Your task to perform on an android device: Go to calendar. Show me events next week Image 0: 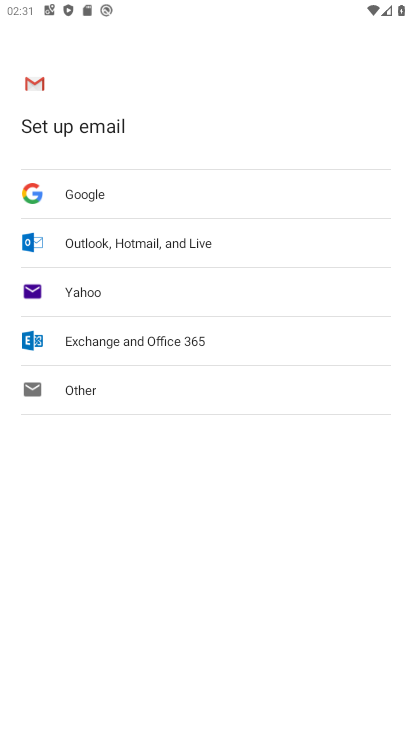
Step 0: press home button
Your task to perform on an android device: Go to calendar. Show me events next week Image 1: 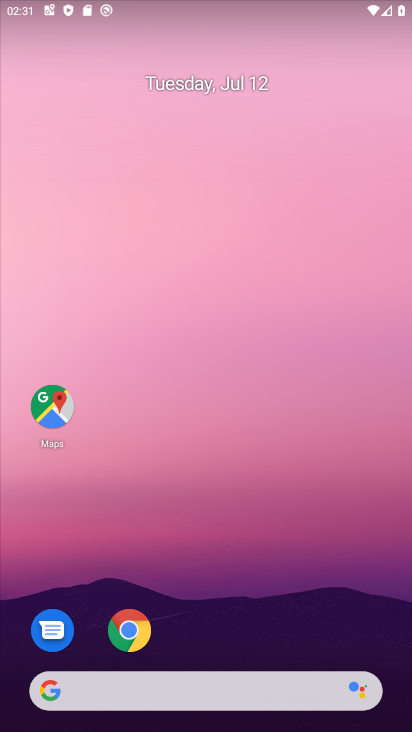
Step 1: drag from (351, 635) to (312, 222)
Your task to perform on an android device: Go to calendar. Show me events next week Image 2: 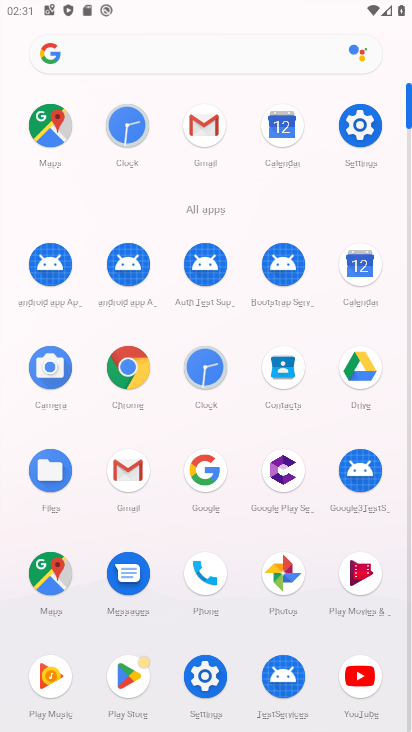
Step 2: click (357, 264)
Your task to perform on an android device: Go to calendar. Show me events next week Image 3: 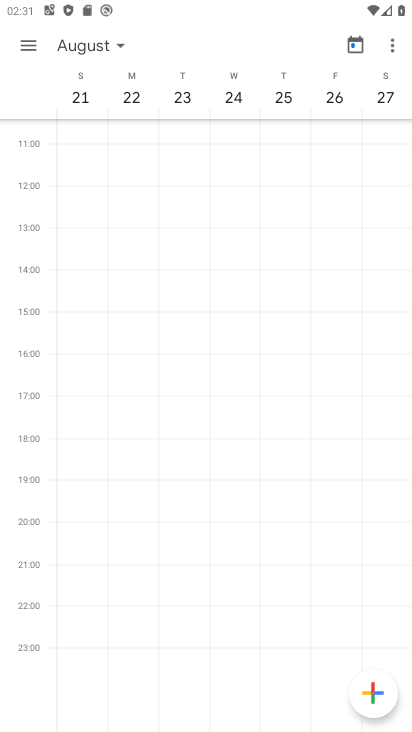
Step 3: click (26, 41)
Your task to perform on an android device: Go to calendar. Show me events next week Image 4: 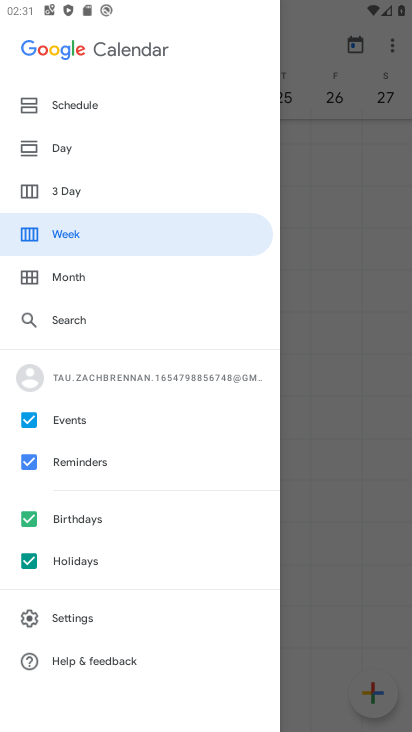
Step 4: click (89, 233)
Your task to perform on an android device: Go to calendar. Show me events next week Image 5: 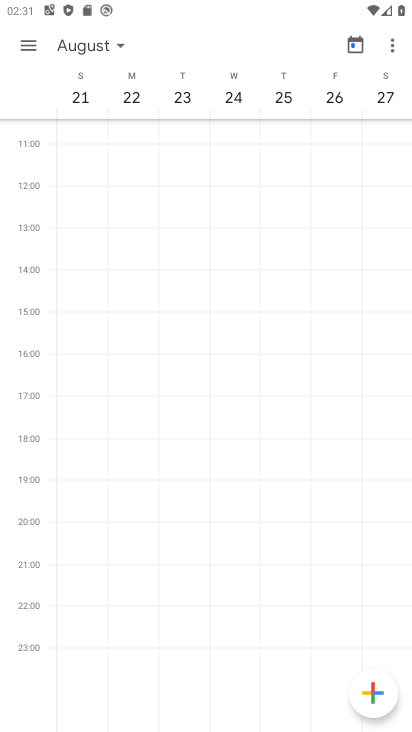
Step 5: click (121, 49)
Your task to perform on an android device: Go to calendar. Show me events next week Image 6: 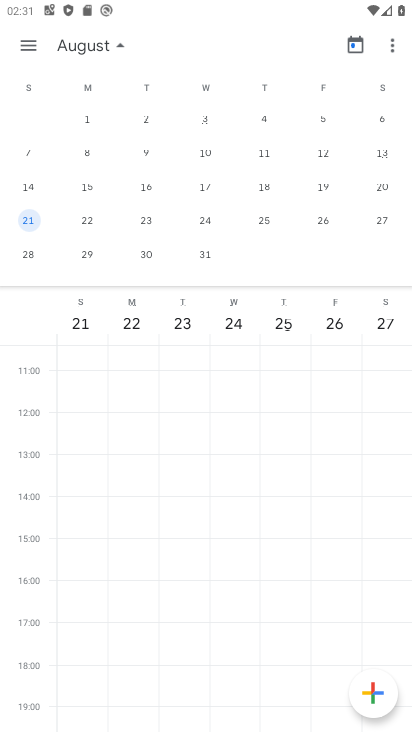
Step 6: drag from (22, 254) to (406, 208)
Your task to perform on an android device: Go to calendar. Show me events next week Image 7: 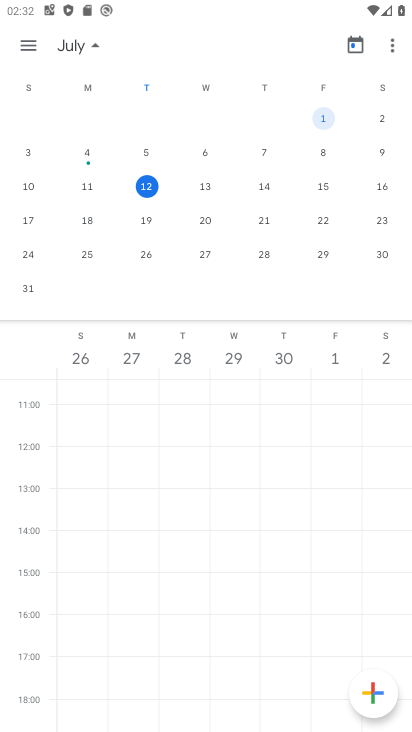
Step 7: click (24, 216)
Your task to perform on an android device: Go to calendar. Show me events next week Image 8: 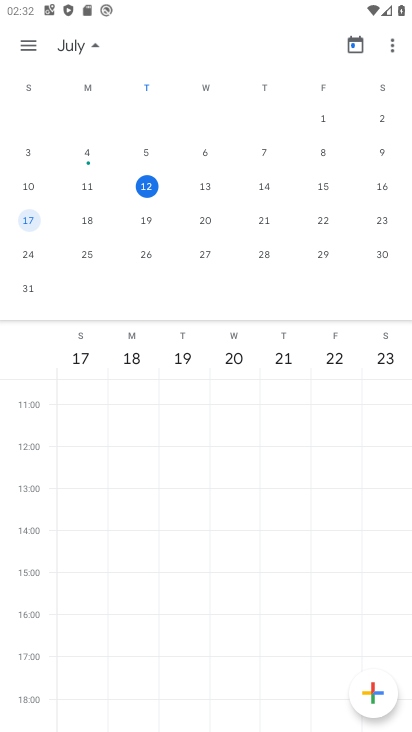
Step 8: task complete